Your task to perform on an android device: Clear all items from cart on amazon.com. Add "macbook air" to the cart on amazon.com Image 0: 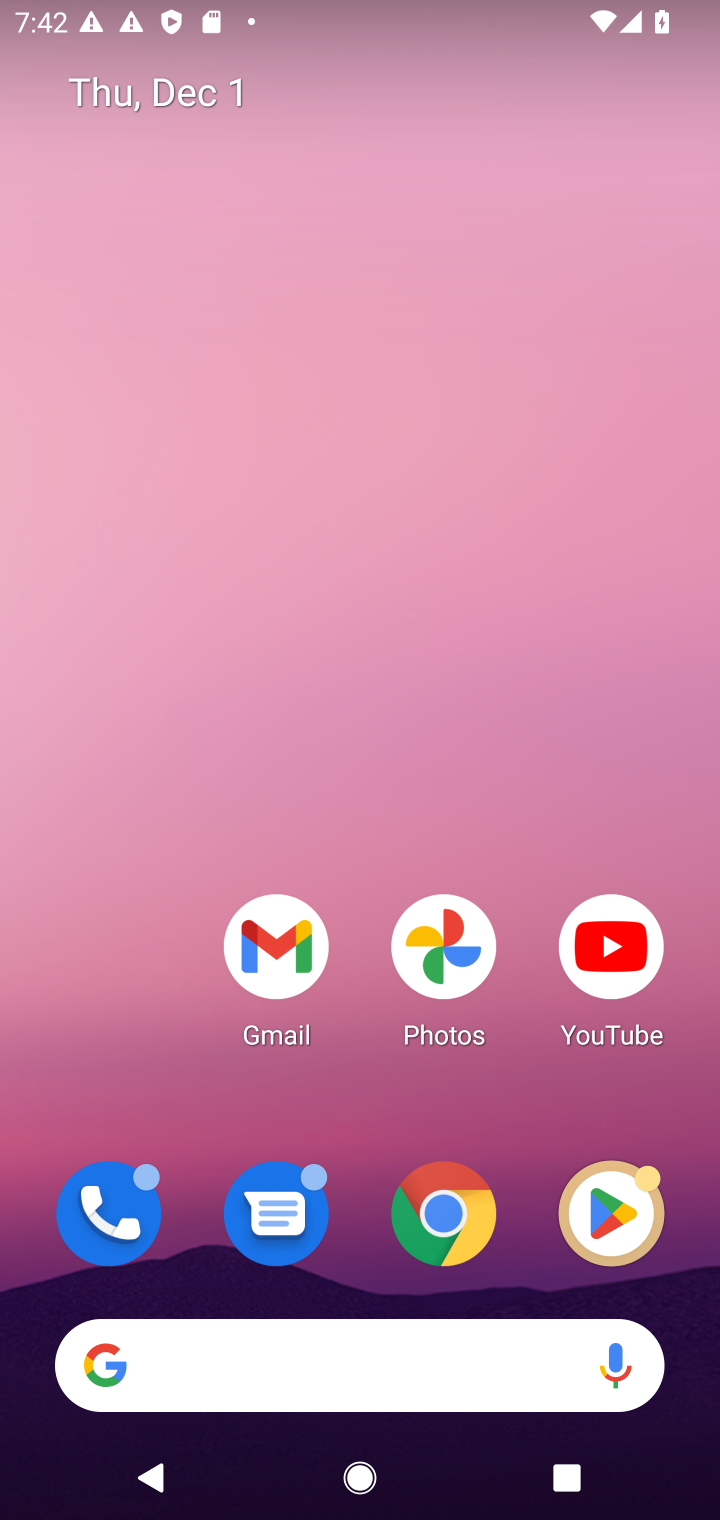
Step 0: click (450, 1201)
Your task to perform on an android device: Clear all items from cart on amazon.com. Add "macbook air" to the cart on amazon.com Image 1: 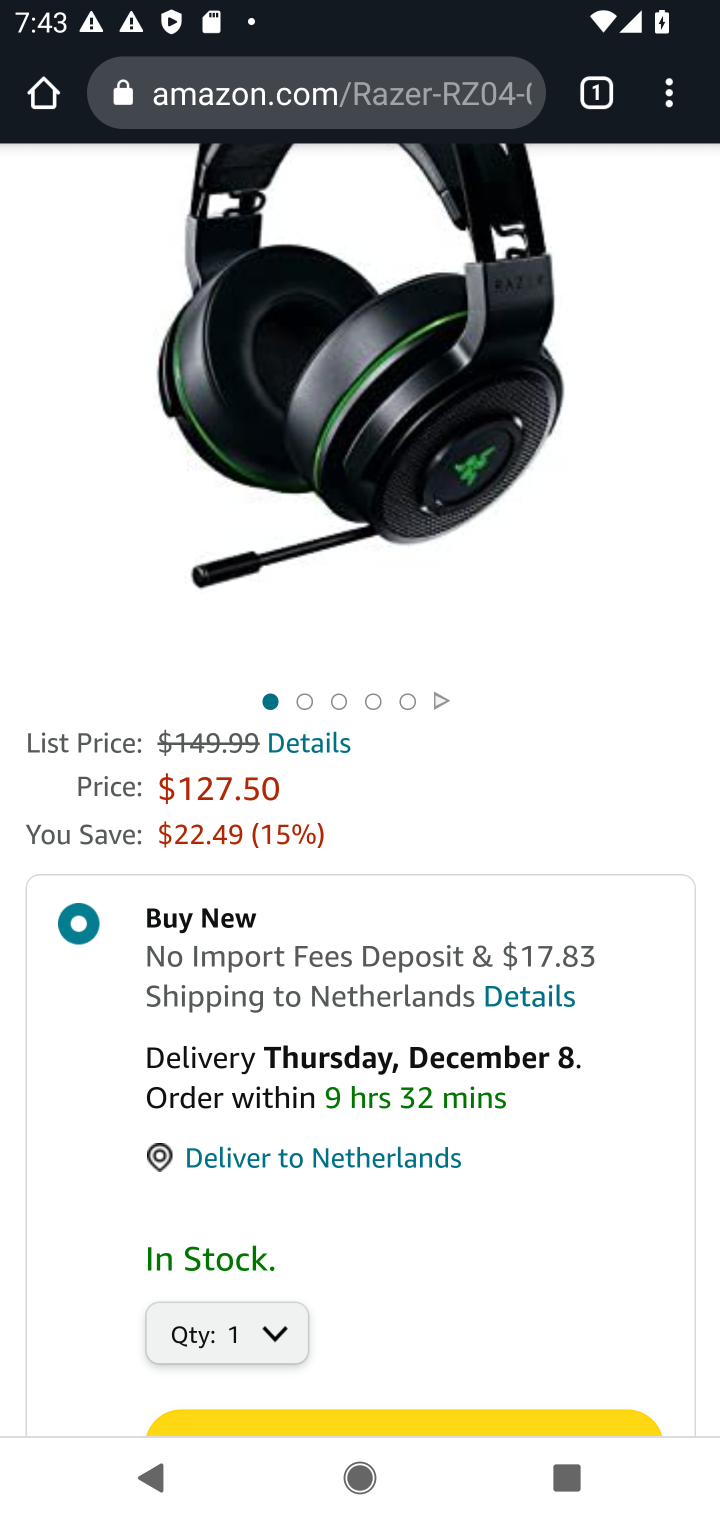
Step 1: press back button
Your task to perform on an android device: Clear all items from cart on amazon.com. Add "macbook air" to the cart on amazon.com Image 2: 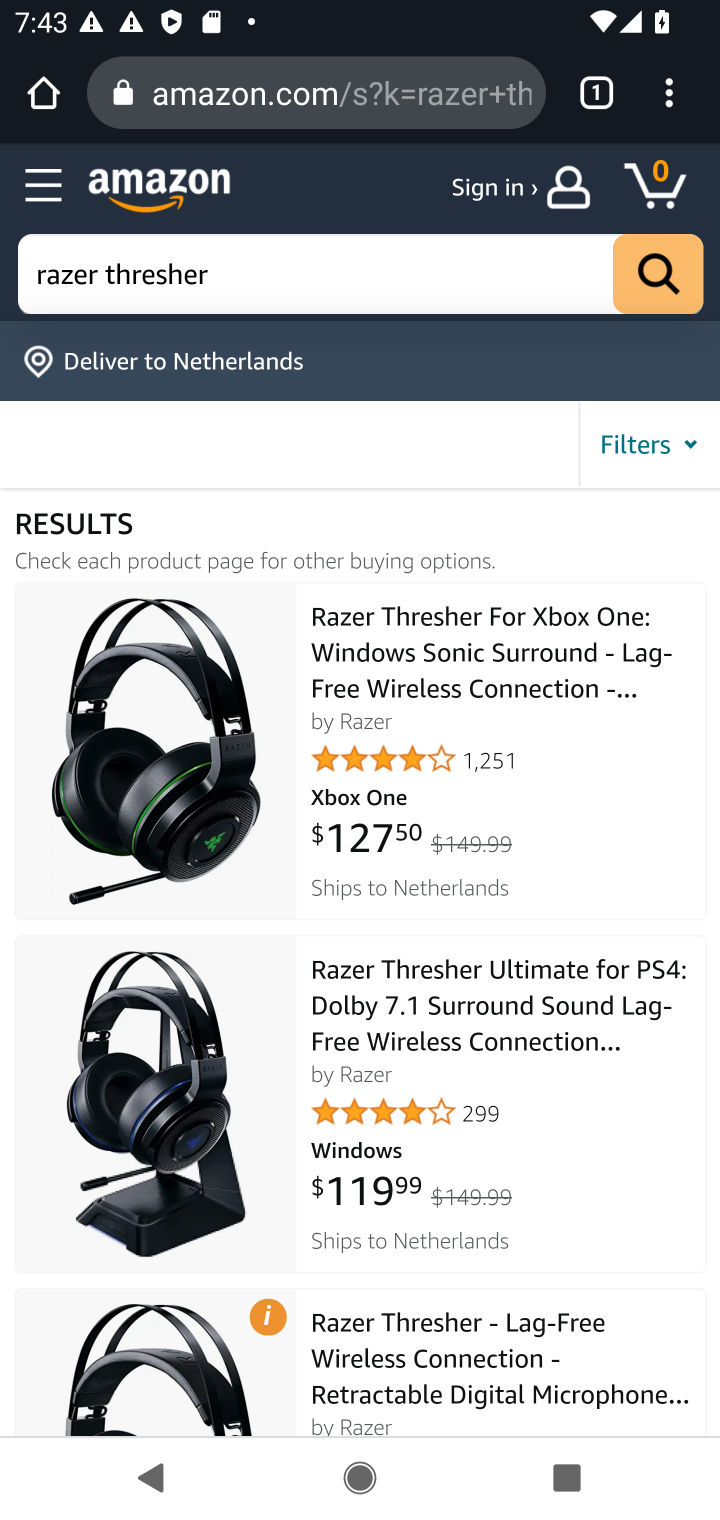
Step 2: click (264, 271)
Your task to perform on an android device: Clear all items from cart on amazon.com. Add "macbook air" to the cart on amazon.com Image 3: 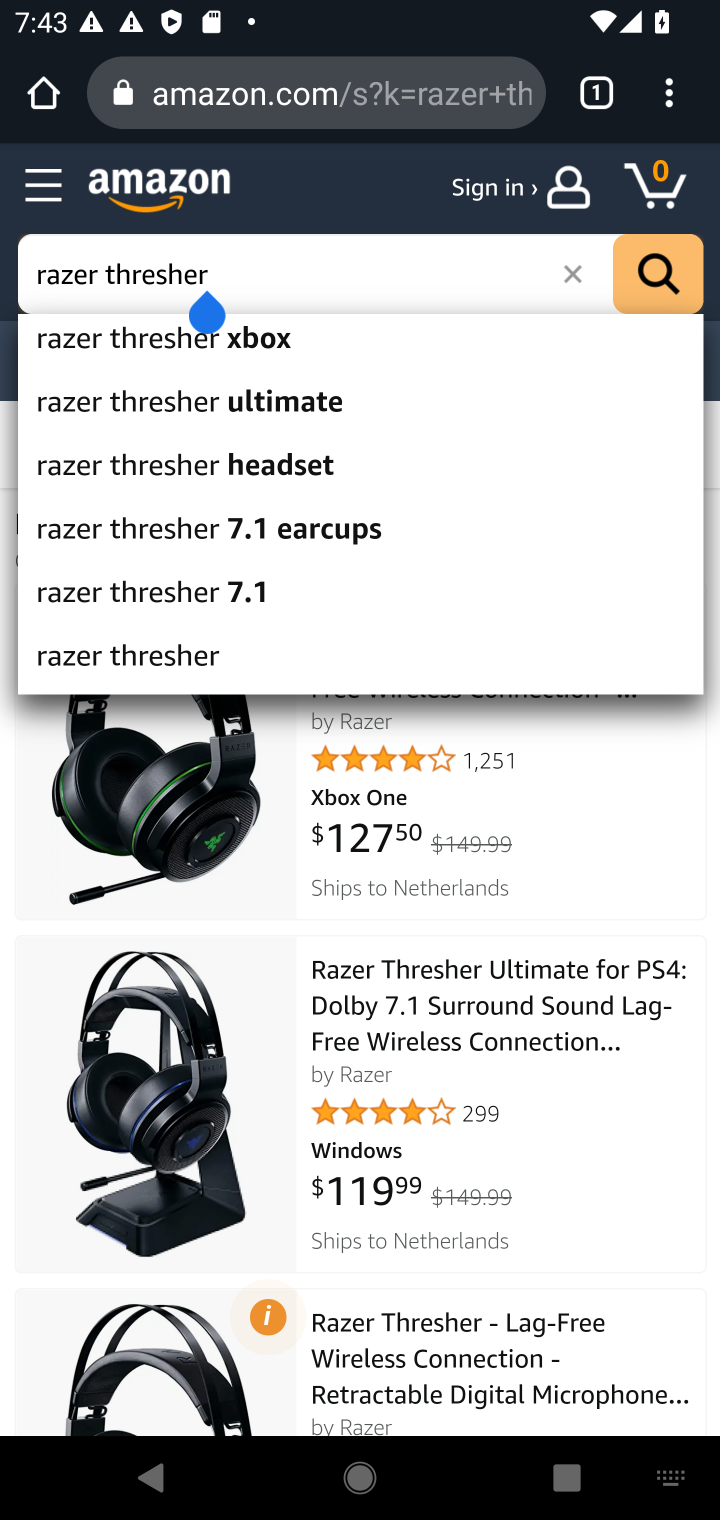
Step 3: click (568, 271)
Your task to perform on an android device: Clear all items from cart on amazon.com. Add "macbook air" to the cart on amazon.com Image 4: 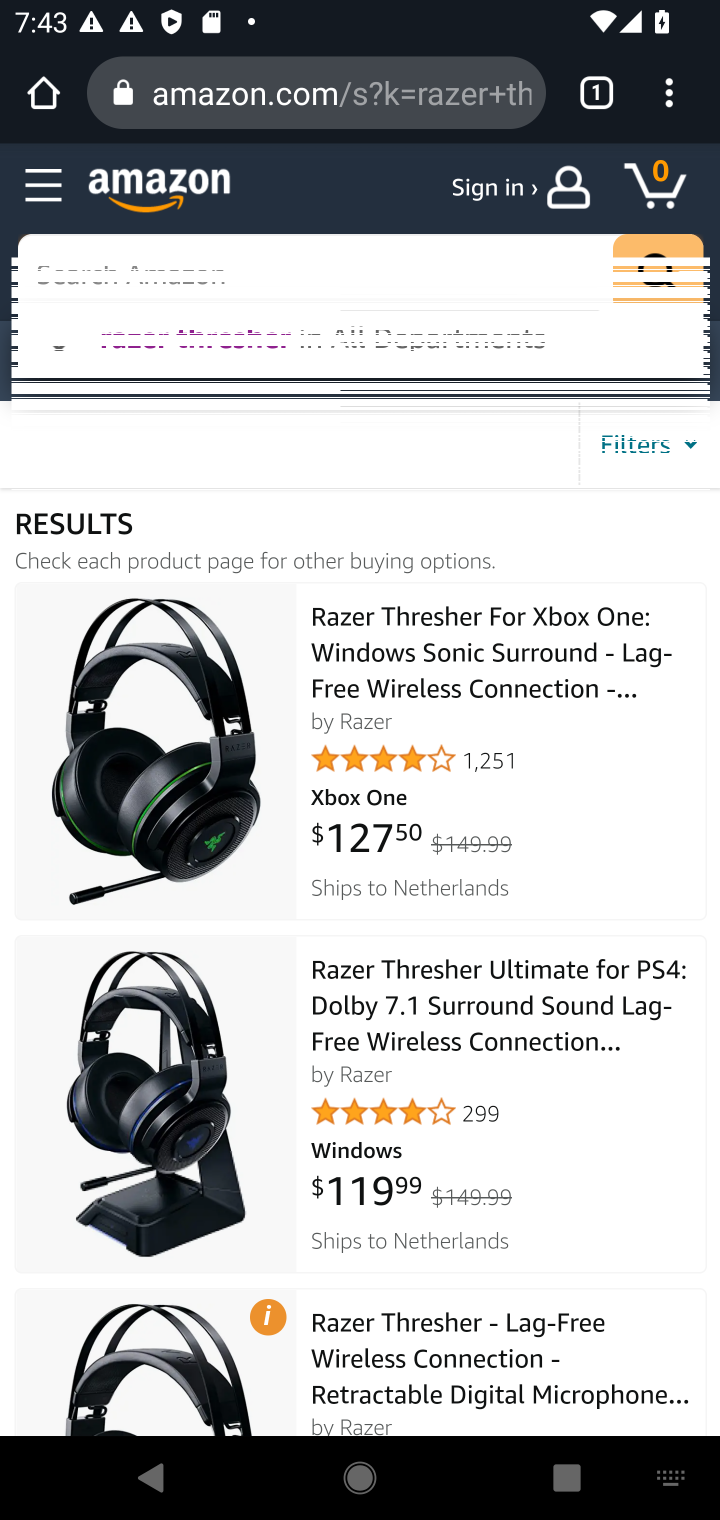
Step 4: type "macbook air"
Your task to perform on an android device: Clear all items from cart on amazon.com. Add "macbook air" to the cart on amazon.com Image 5: 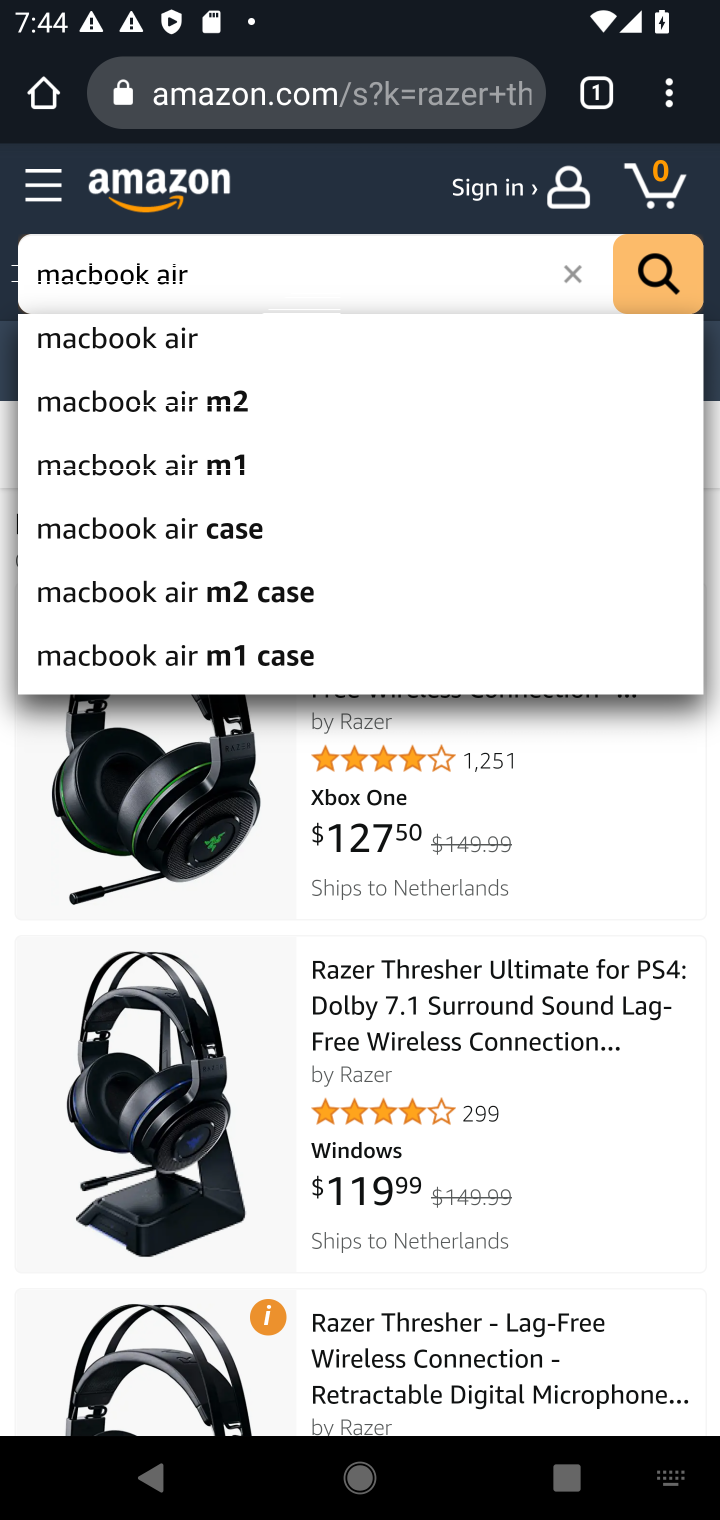
Step 5: click (180, 335)
Your task to perform on an android device: Clear all items from cart on amazon.com. Add "macbook air" to the cart on amazon.com Image 6: 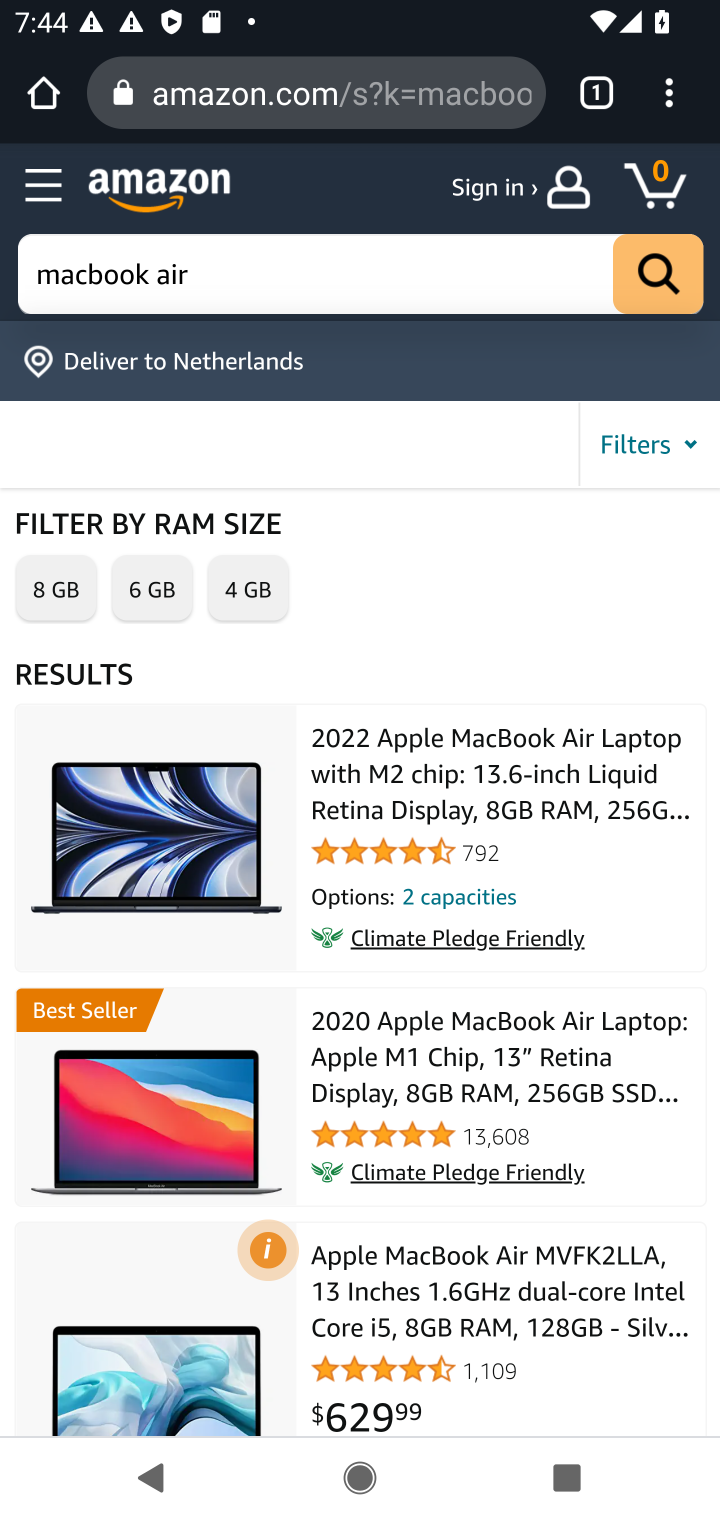
Step 6: click (435, 820)
Your task to perform on an android device: Clear all items from cart on amazon.com. Add "macbook air" to the cart on amazon.com Image 7: 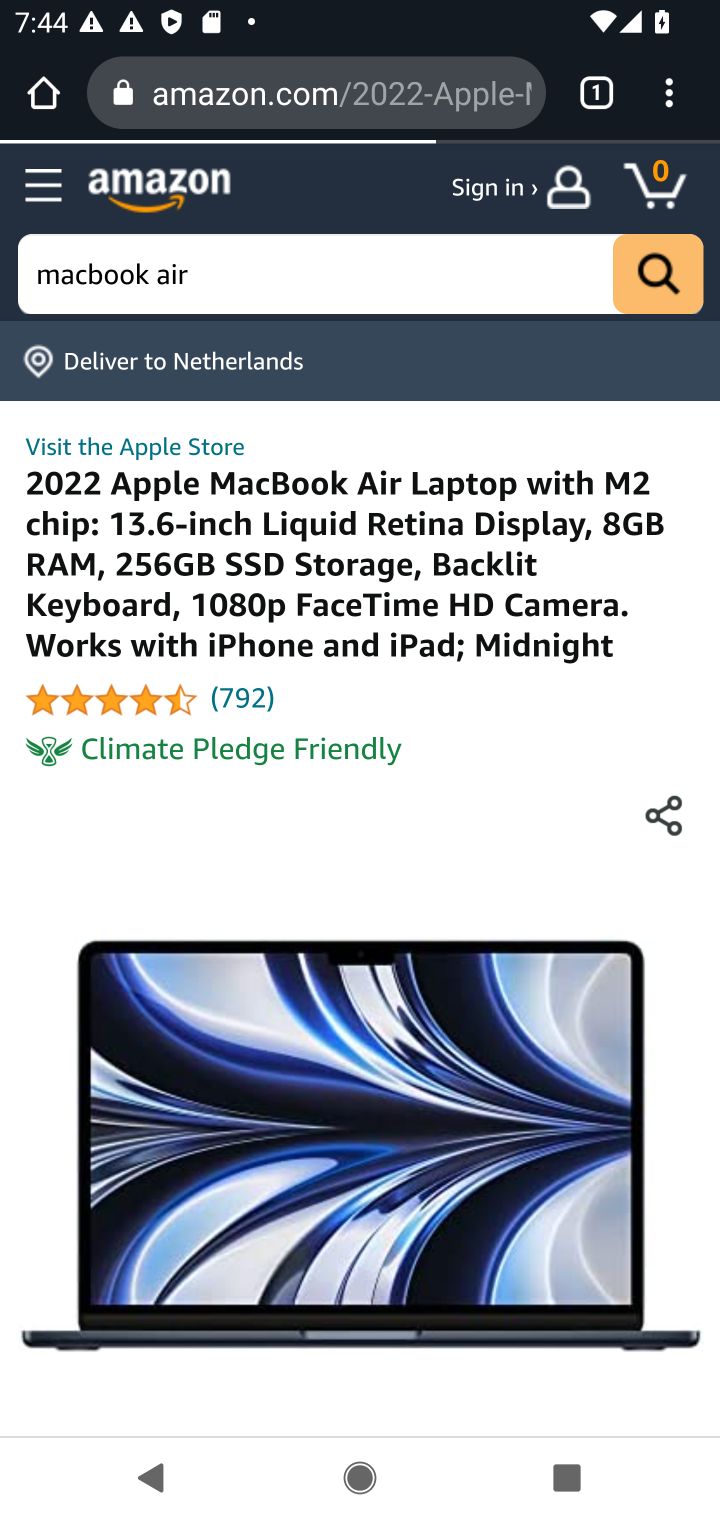
Step 7: drag from (448, 929) to (489, 497)
Your task to perform on an android device: Clear all items from cart on amazon.com. Add "macbook air" to the cart on amazon.com Image 8: 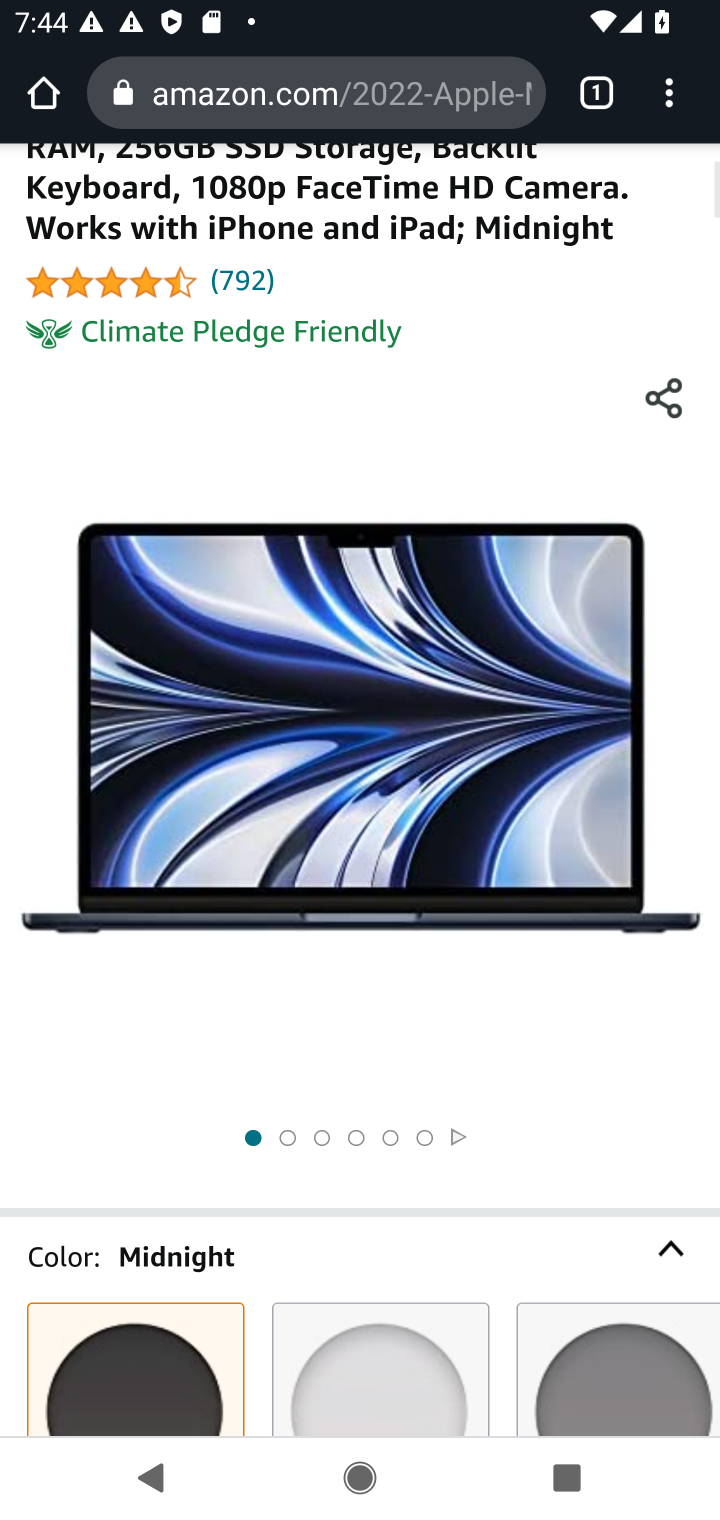
Step 8: drag from (429, 754) to (483, 337)
Your task to perform on an android device: Clear all items from cart on amazon.com. Add "macbook air" to the cart on amazon.com Image 9: 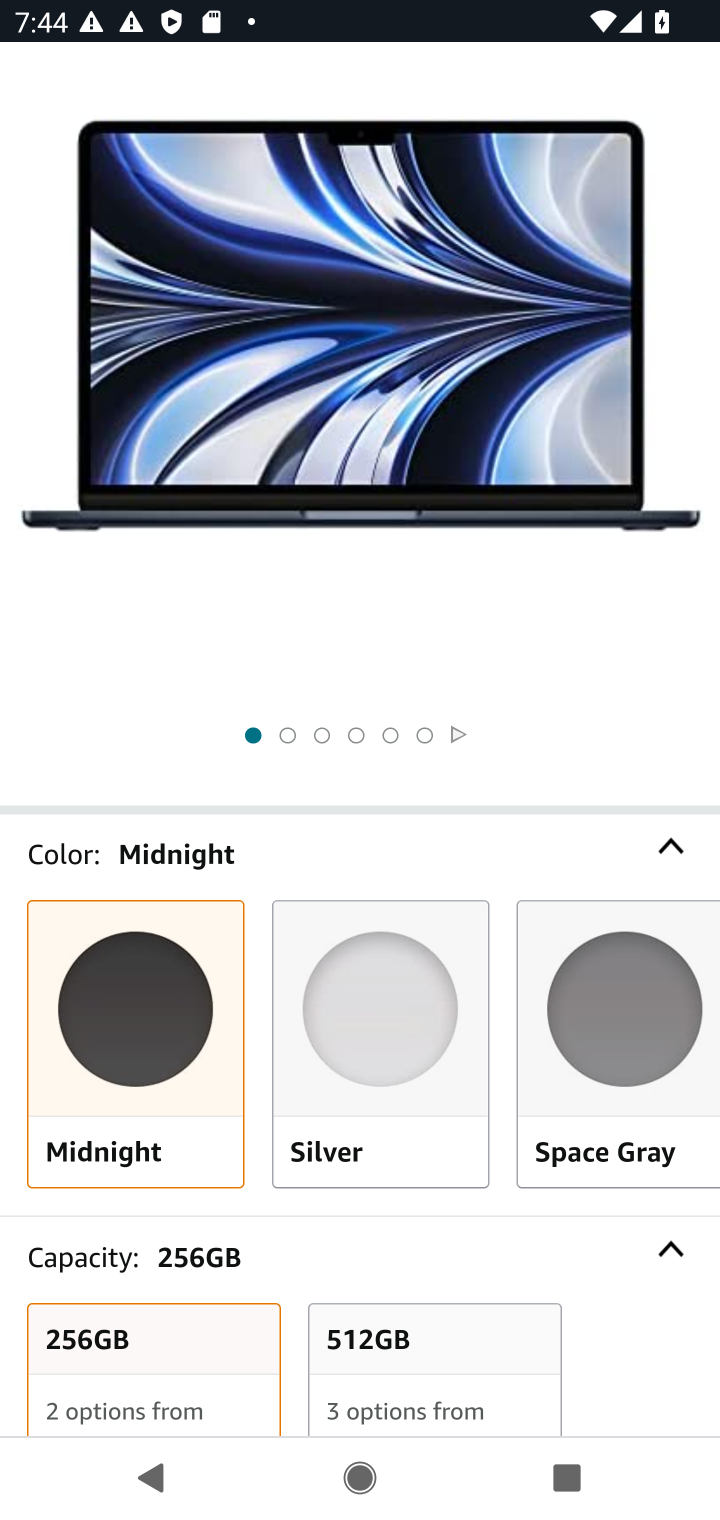
Step 9: drag from (570, 1306) to (630, 518)
Your task to perform on an android device: Clear all items from cart on amazon.com. Add "macbook air" to the cart on amazon.com Image 10: 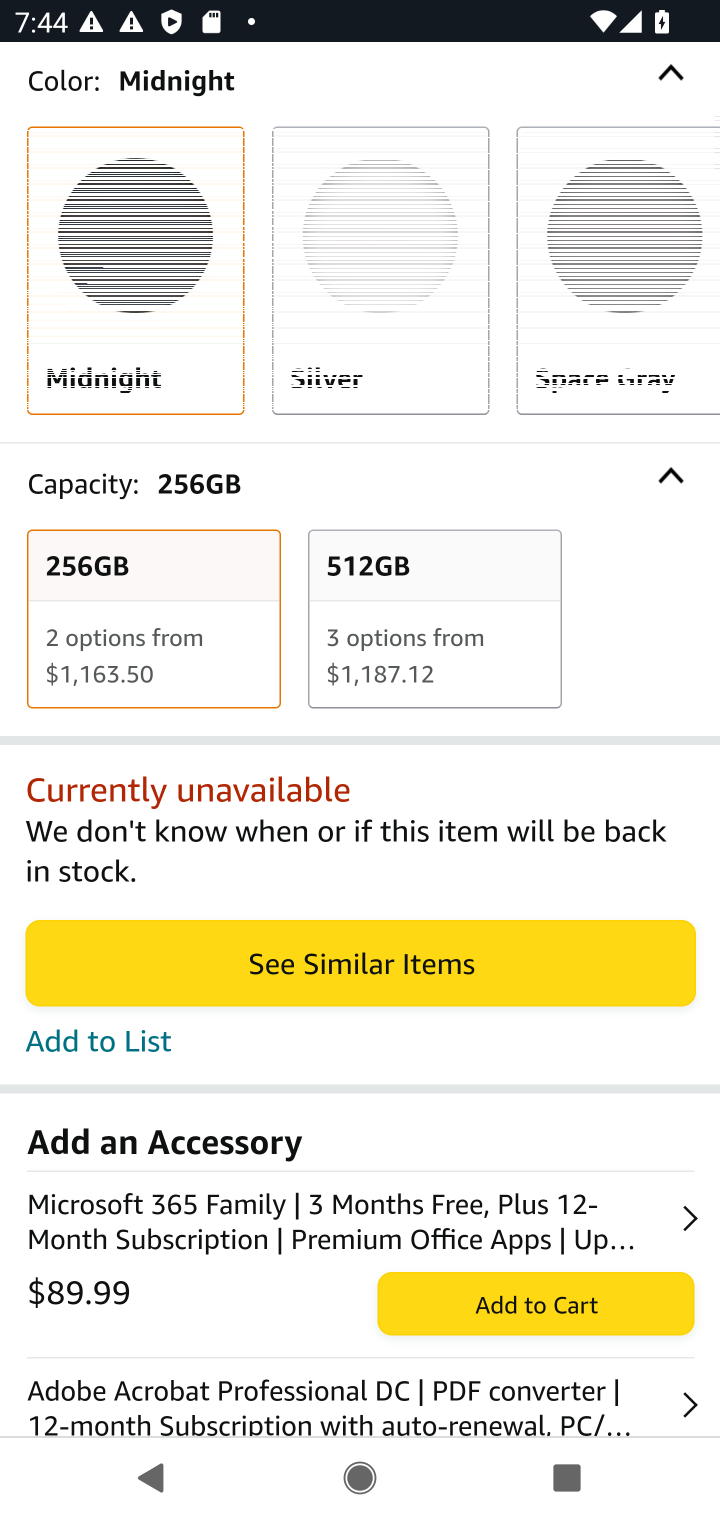
Step 10: click (523, 1311)
Your task to perform on an android device: Clear all items from cart on amazon.com. Add "macbook air" to the cart on amazon.com Image 11: 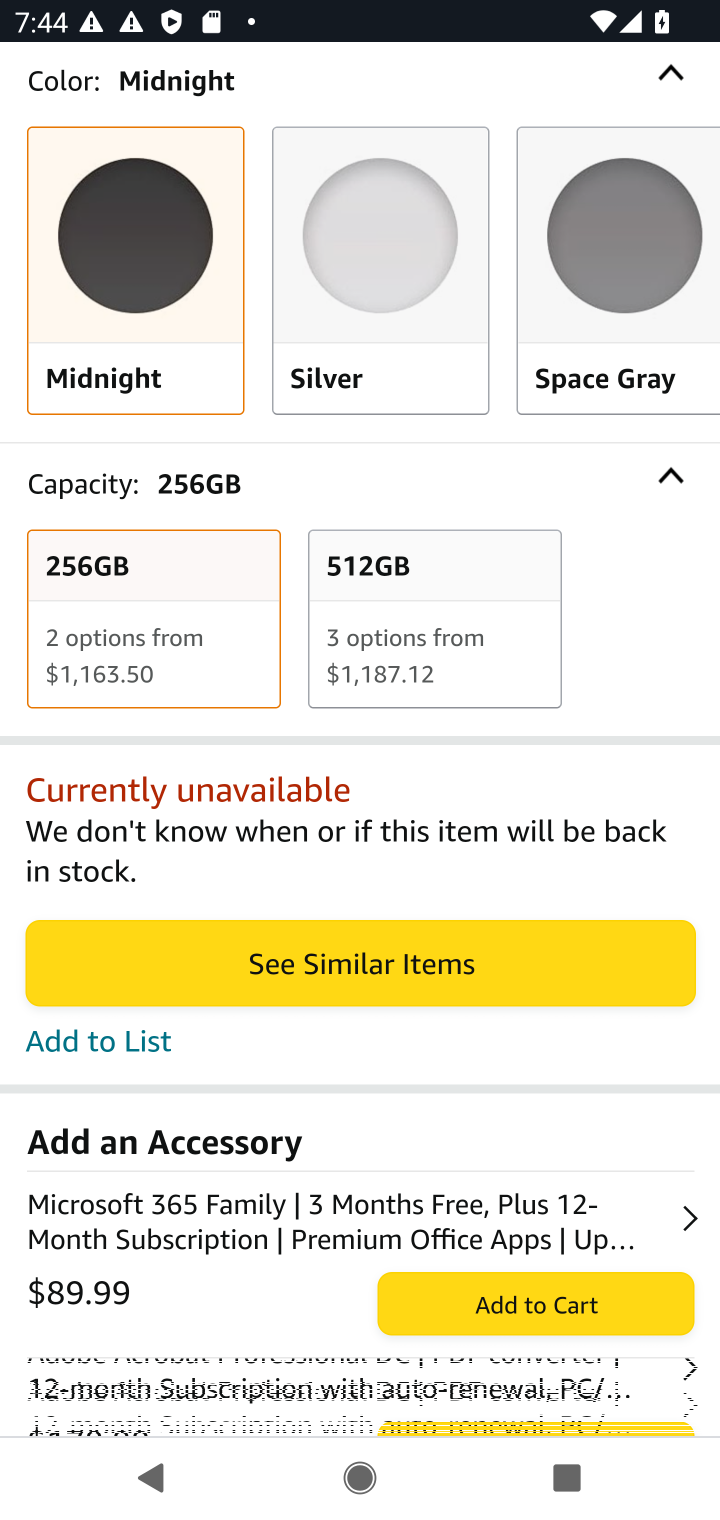
Step 11: task complete